Your task to perform on an android device: Open Google Chrome and open the bookmarks view Image 0: 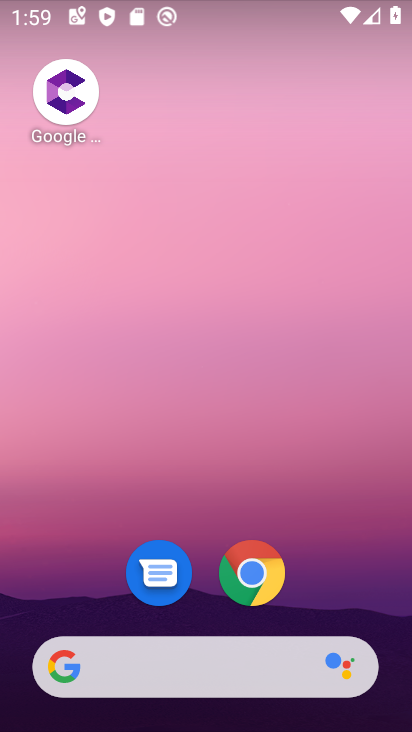
Step 0: click (251, 564)
Your task to perform on an android device: Open Google Chrome and open the bookmarks view Image 1: 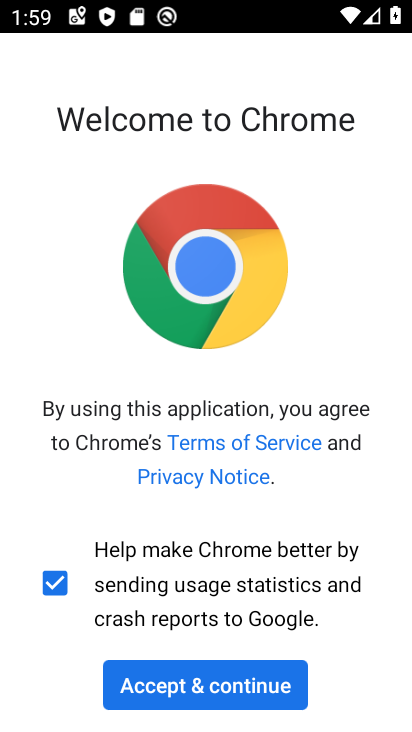
Step 1: click (193, 680)
Your task to perform on an android device: Open Google Chrome and open the bookmarks view Image 2: 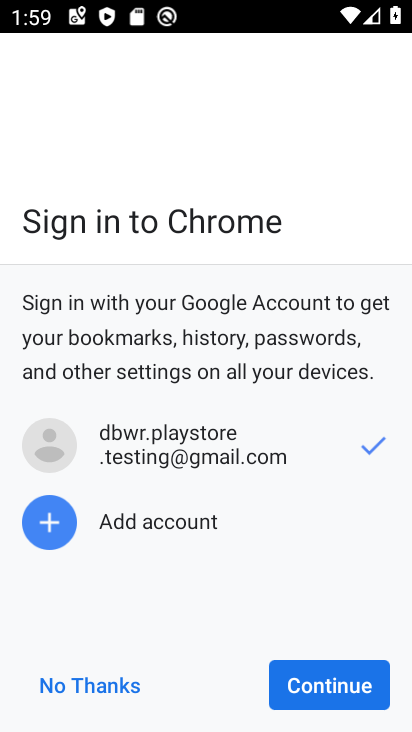
Step 2: click (331, 683)
Your task to perform on an android device: Open Google Chrome and open the bookmarks view Image 3: 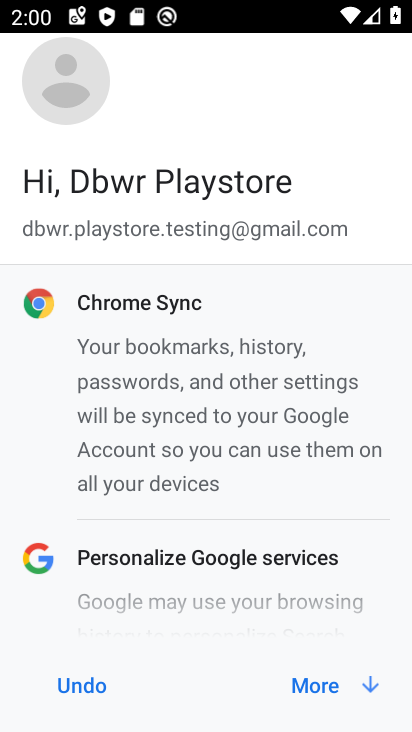
Step 3: click (331, 683)
Your task to perform on an android device: Open Google Chrome and open the bookmarks view Image 4: 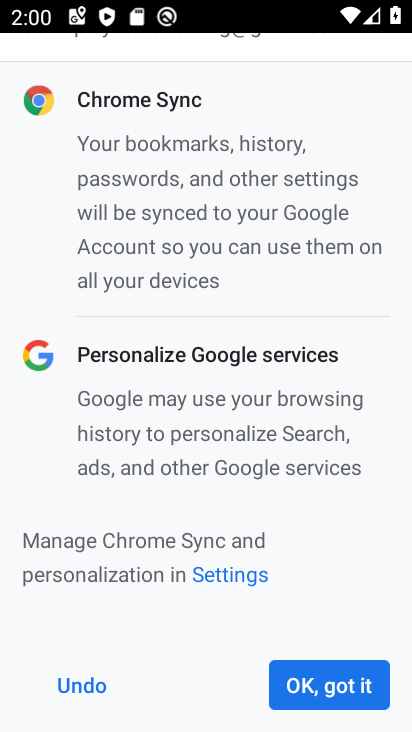
Step 4: click (331, 683)
Your task to perform on an android device: Open Google Chrome and open the bookmarks view Image 5: 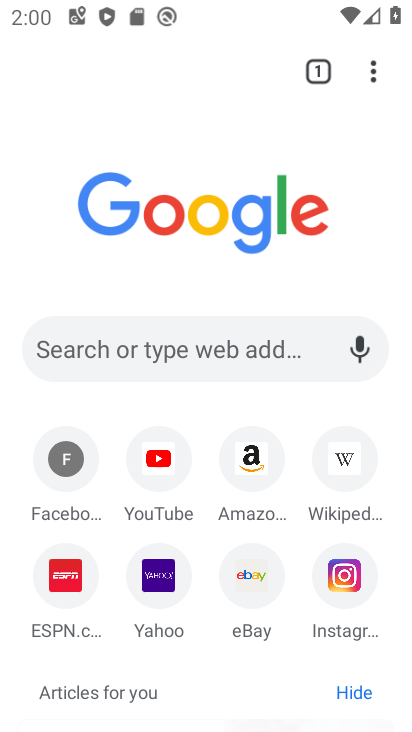
Step 5: click (371, 68)
Your task to perform on an android device: Open Google Chrome and open the bookmarks view Image 6: 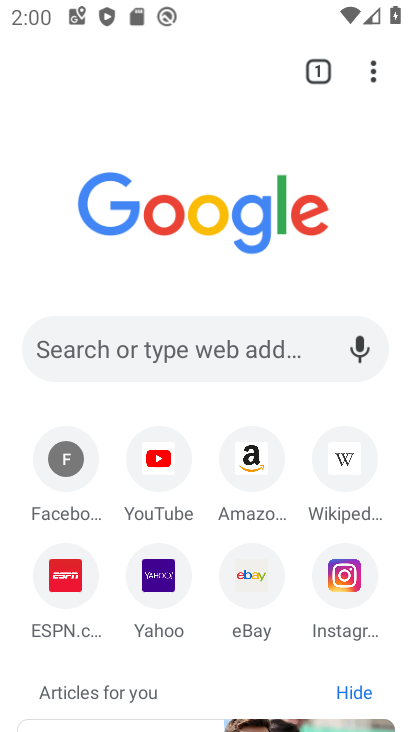
Step 6: click (374, 70)
Your task to perform on an android device: Open Google Chrome and open the bookmarks view Image 7: 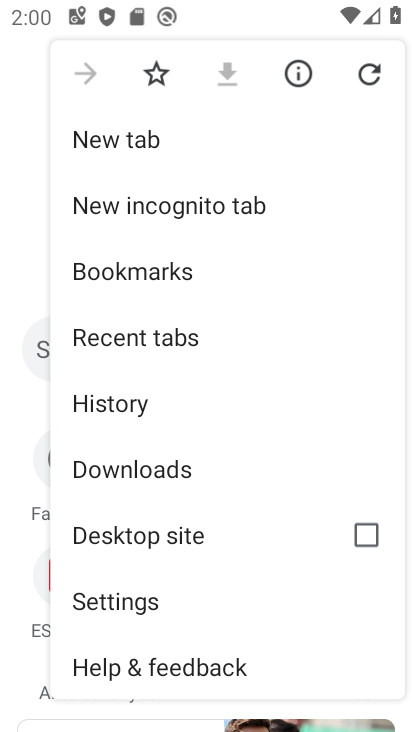
Step 7: click (208, 266)
Your task to perform on an android device: Open Google Chrome and open the bookmarks view Image 8: 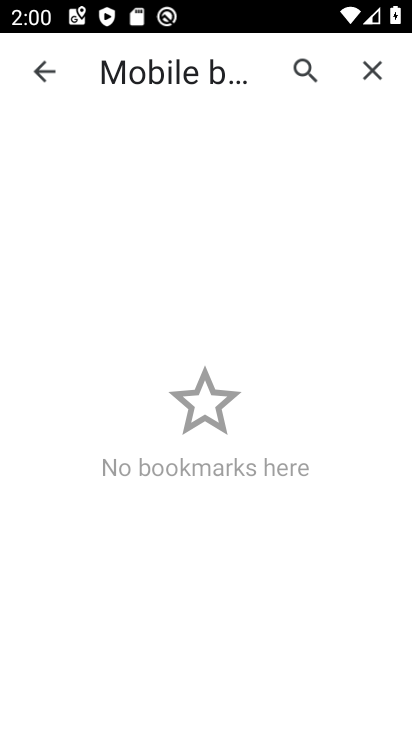
Step 8: task complete